Your task to perform on an android device: change alarm snooze length Image 0: 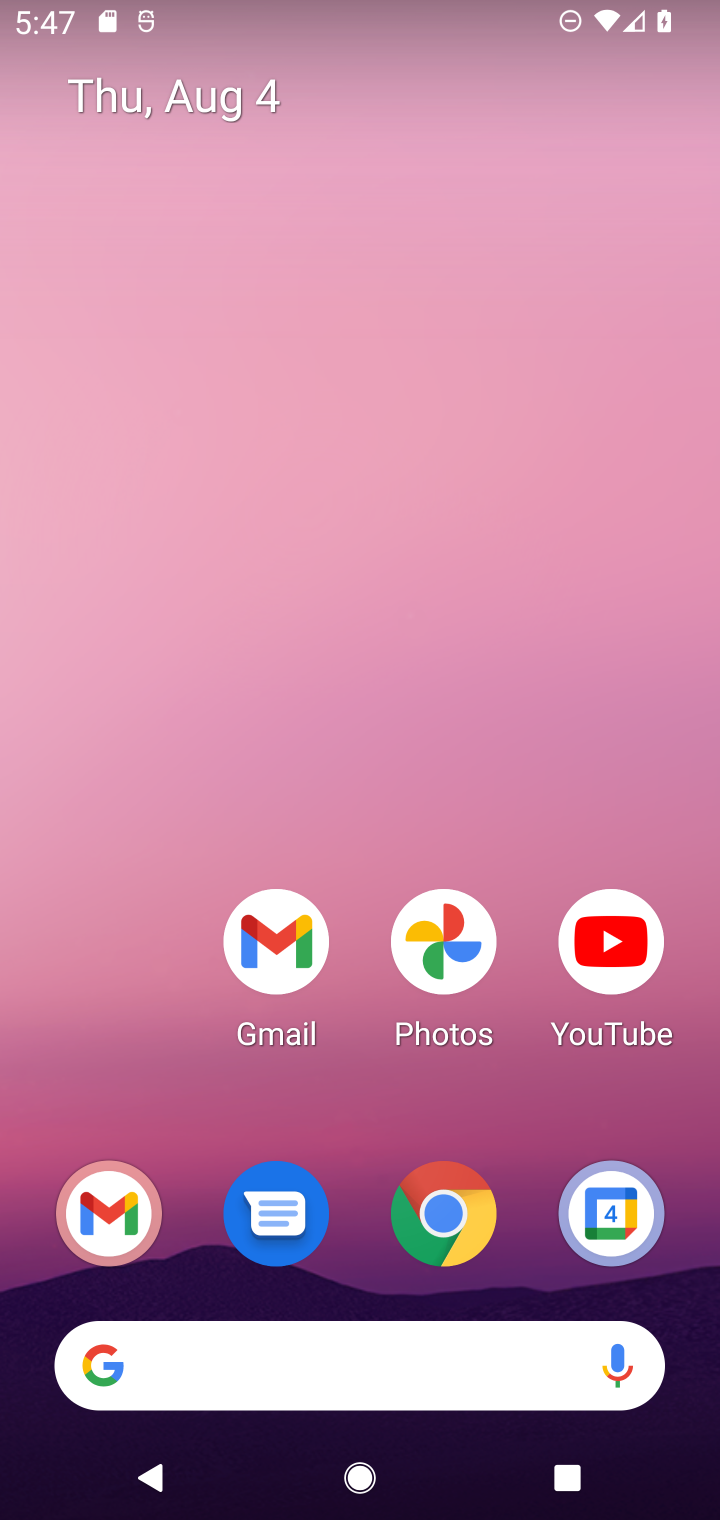
Step 0: press home button
Your task to perform on an android device: change alarm snooze length Image 1: 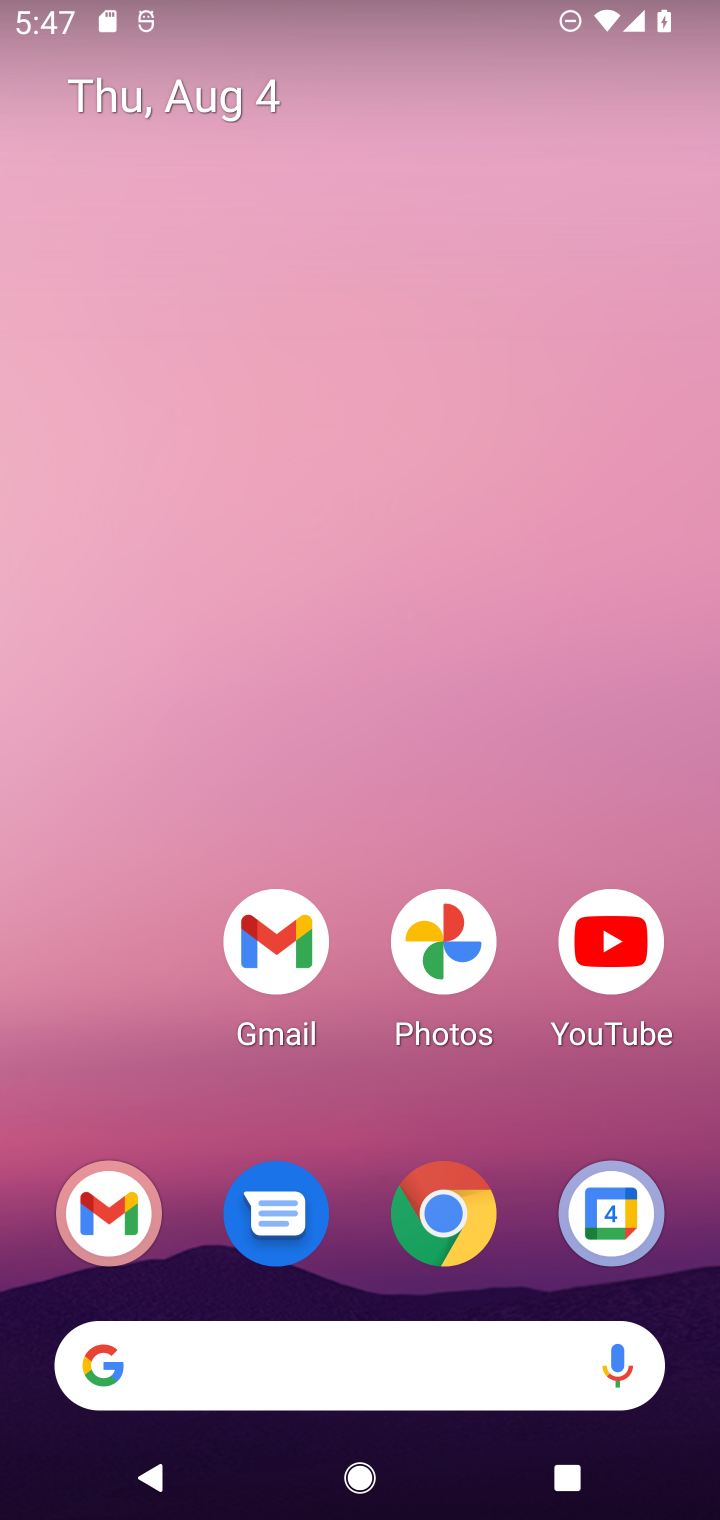
Step 1: drag from (174, 1069) to (252, 270)
Your task to perform on an android device: change alarm snooze length Image 2: 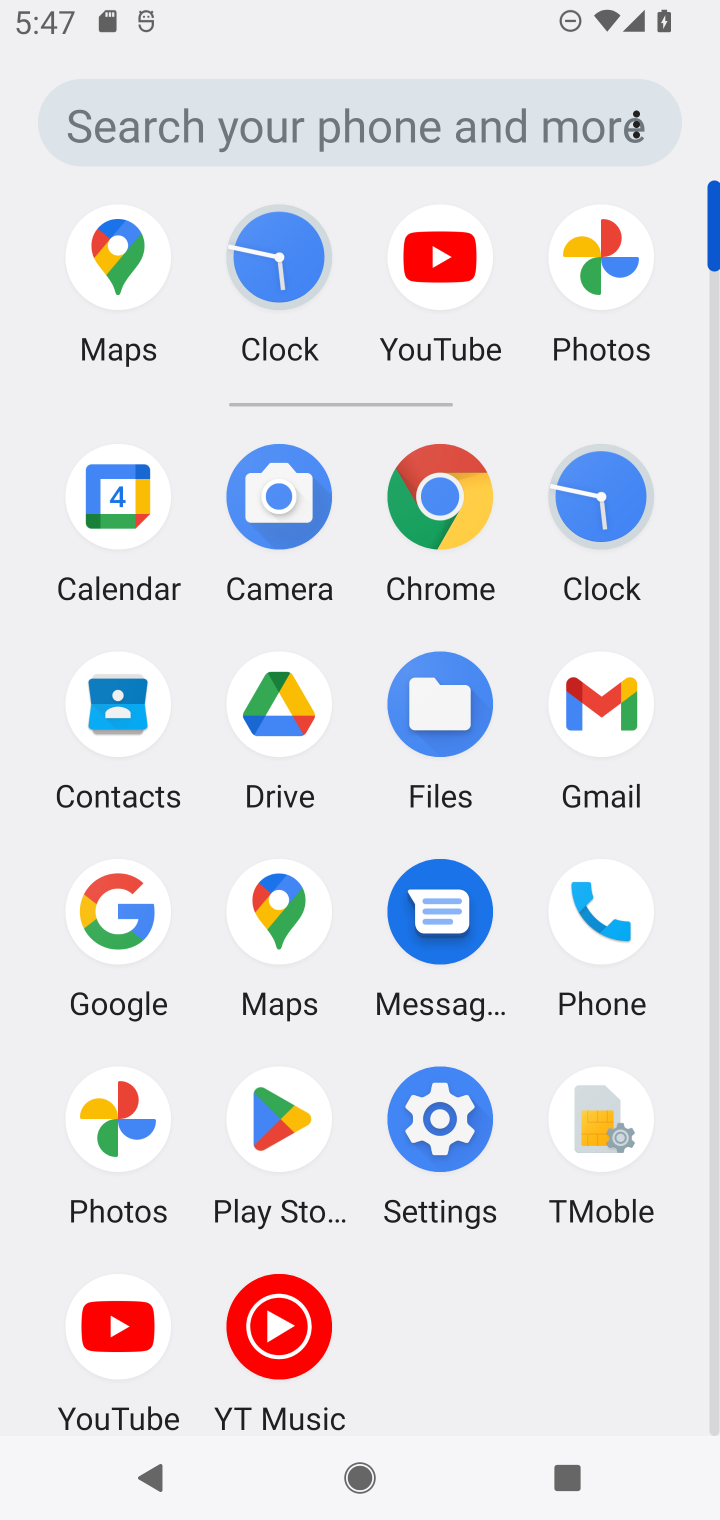
Step 2: click (596, 510)
Your task to perform on an android device: change alarm snooze length Image 3: 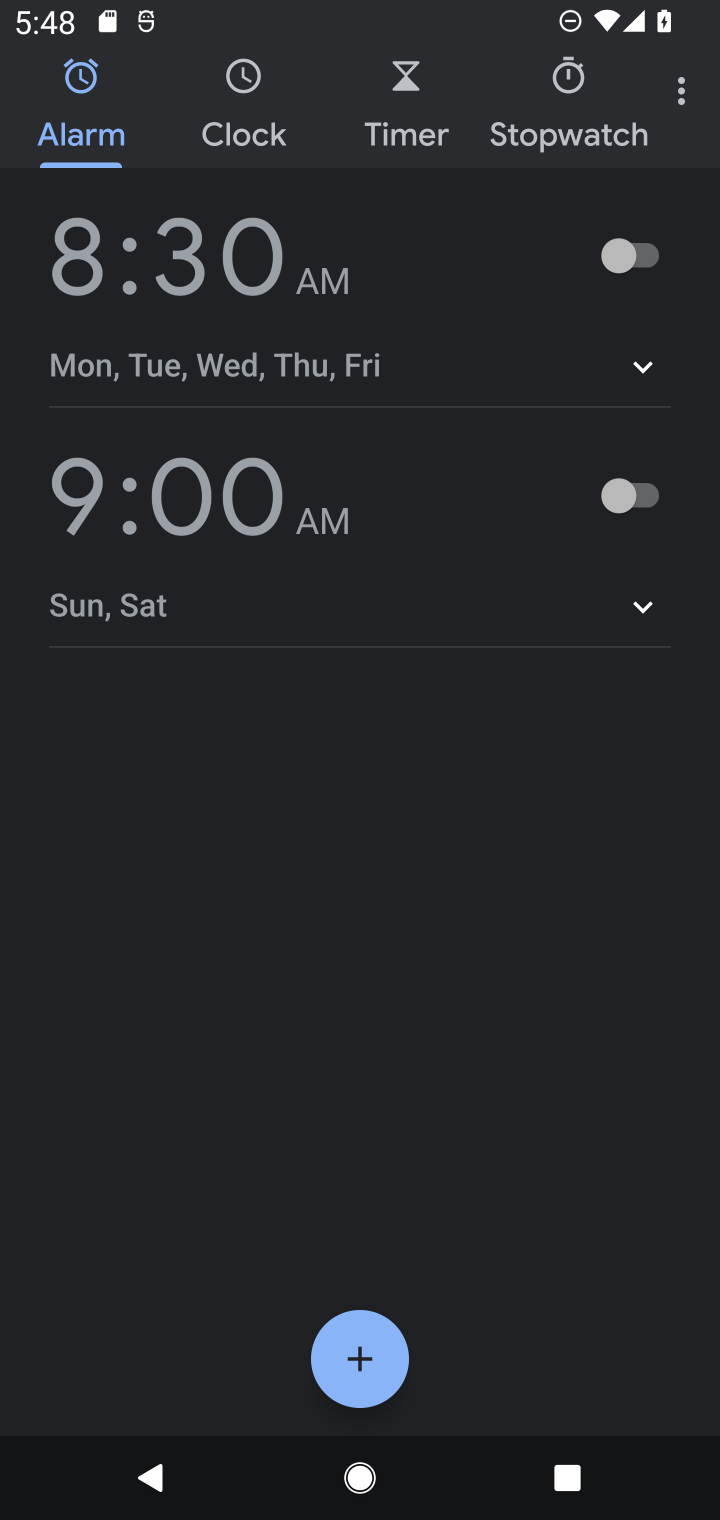
Step 3: click (684, 90)
Your task to perform on an android device: change alarm snooze length Image 4: 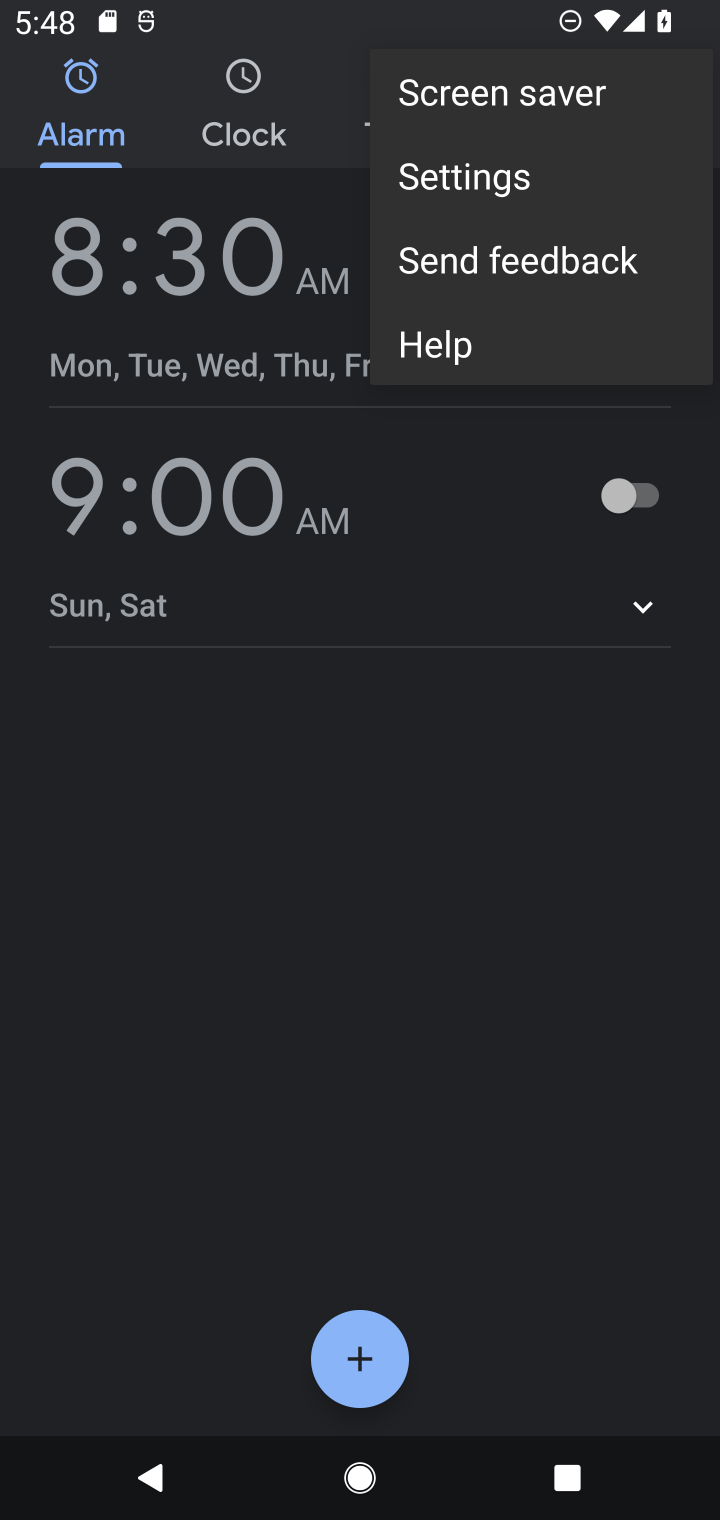
Step 4: click (513, 167)
Your task to perform on an android device: change alarm snooze length Image 5: 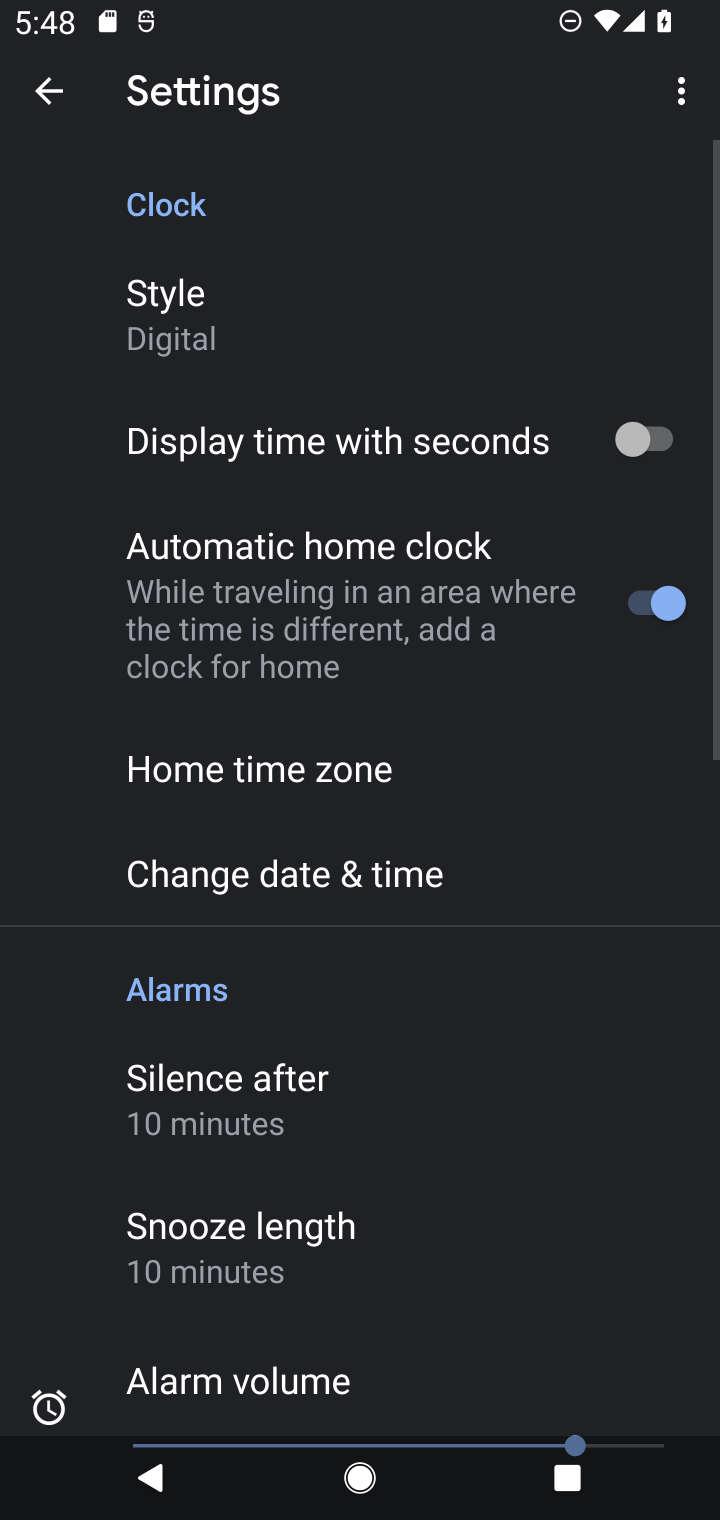
Step 5: drag from (496, 1098) to (498, 591)
Your task to perform on an android device: change alarm snooze length Image 6: 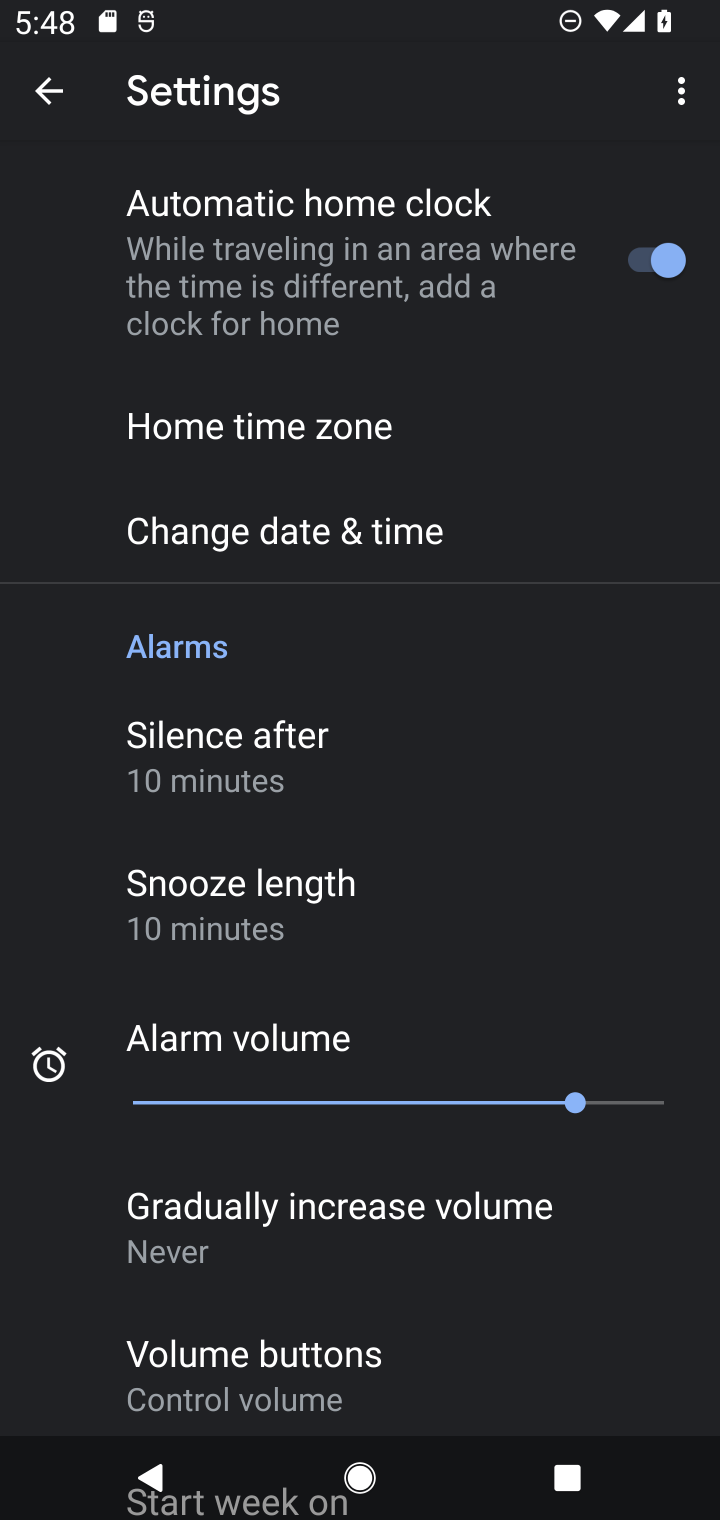
Step 6: drag from (500, 1286) to (494, 909)
Your task to perform on an android device: change alarm snooze length Image 7: 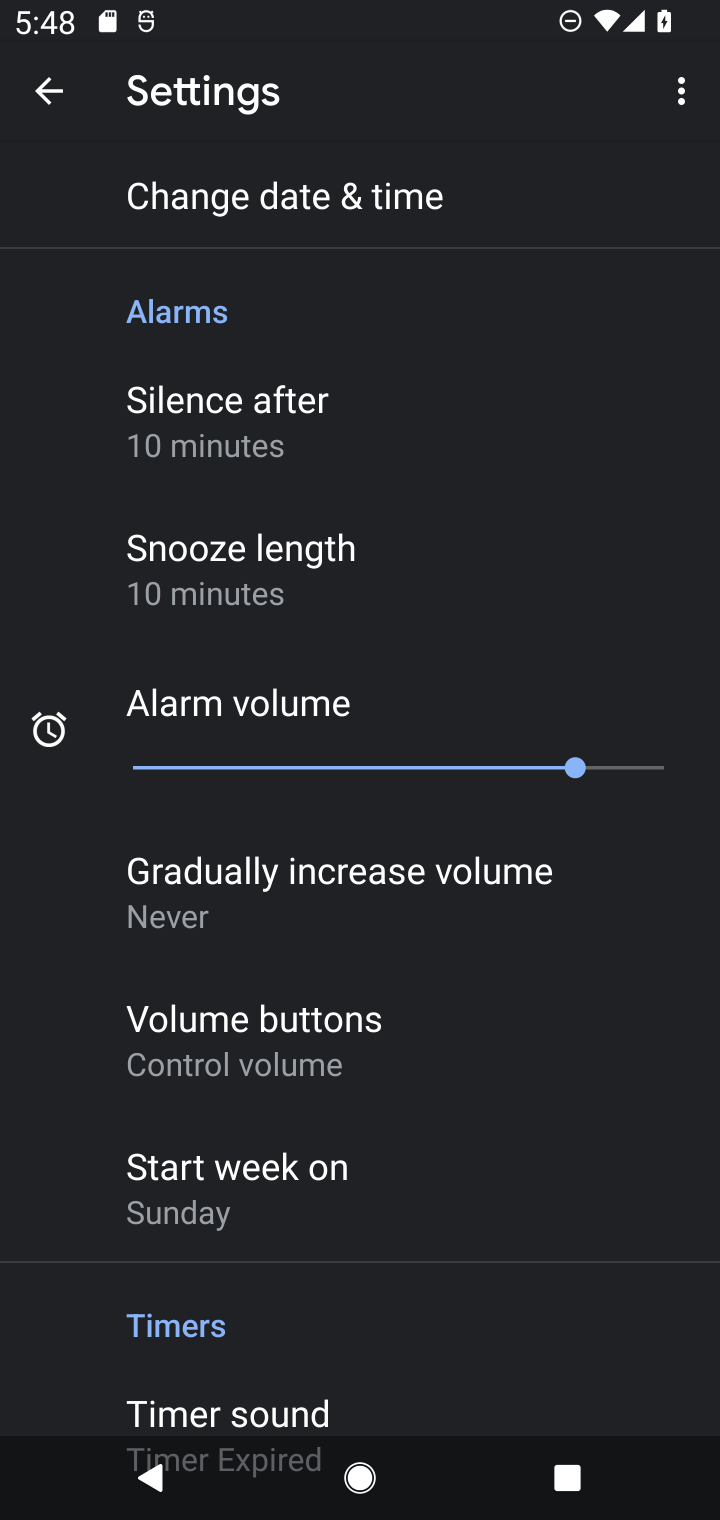
Step 7: drag from (523, 1185) to (525, 868)
Your task to perform on an android device: change alarm snooze length Image 8: 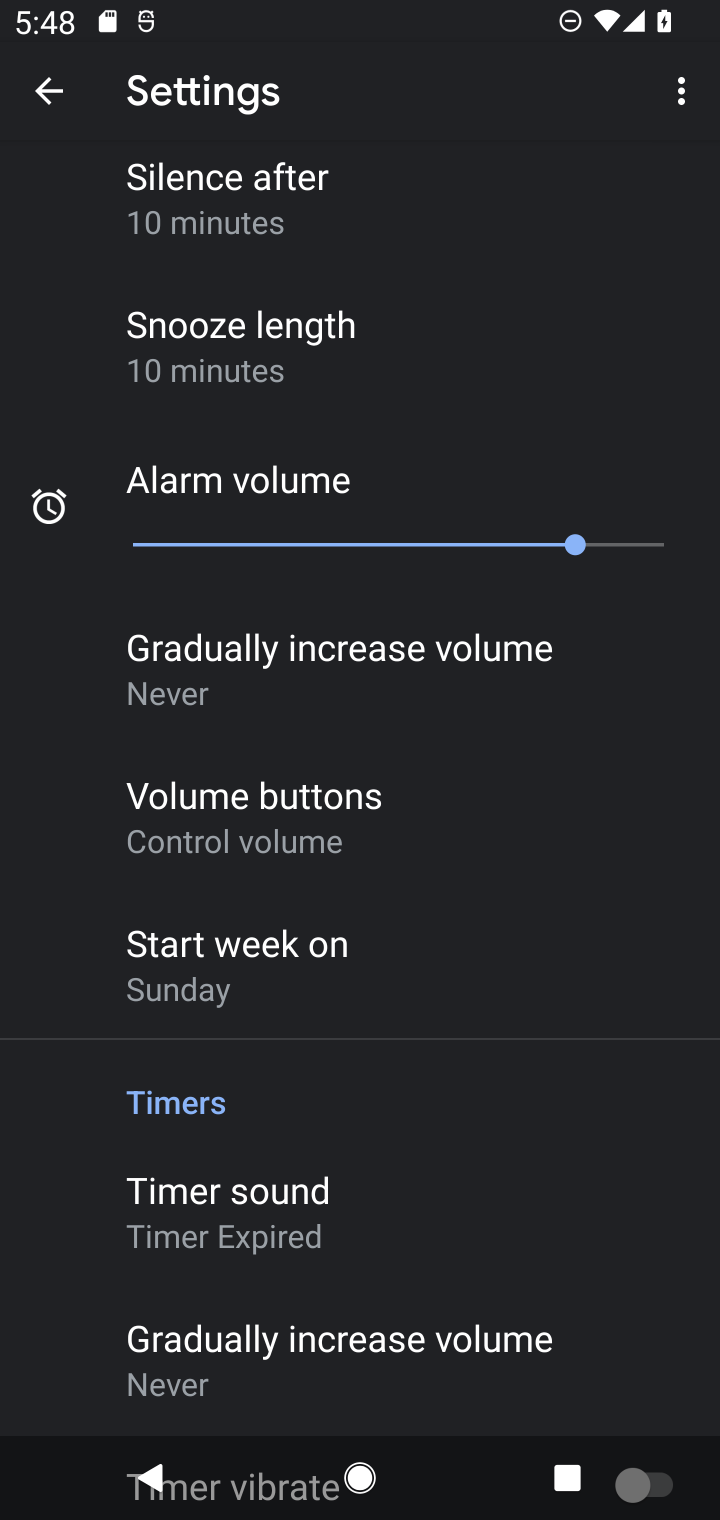
Step 8: drag from (599, 1156) to (601, 835)
Your task to perform on an android device: change alarm snooze length Image 9: 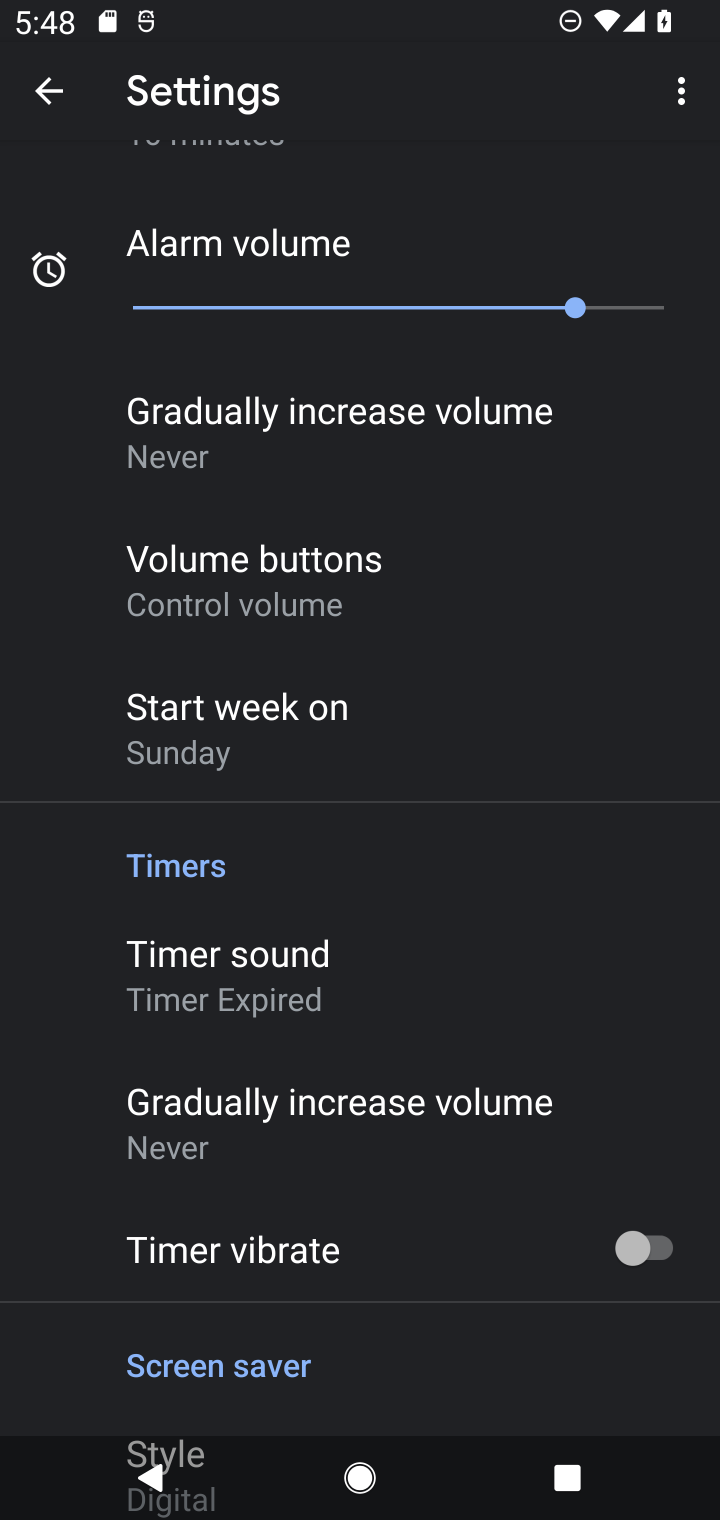
Step 9: drag from (456, 1224) to (453, 797)
Your task to perform on an android device: change alarm snooze length Image 10: 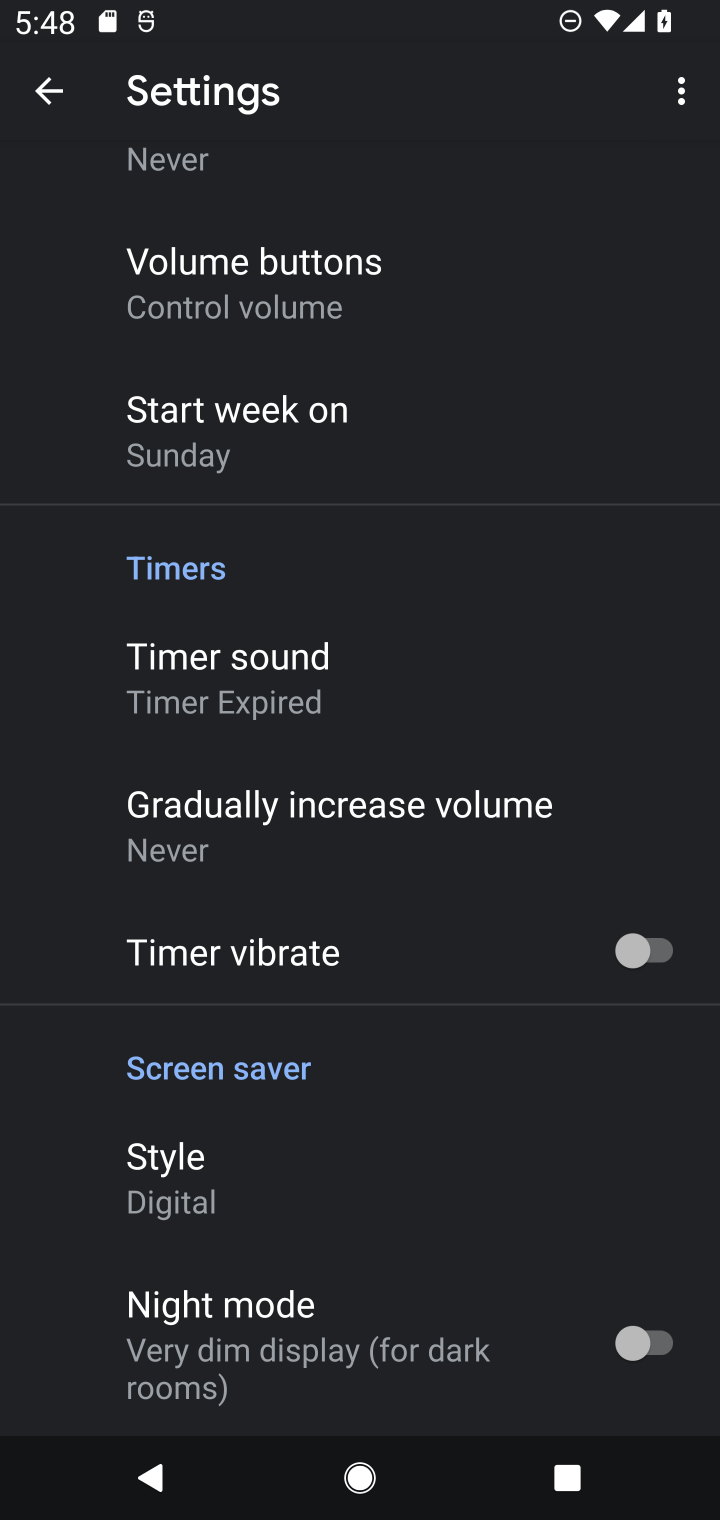
Step 10: drag from (453, 1202) to (453, 823)
Your task to perform on an android device: change alarm snooze length Image 11: 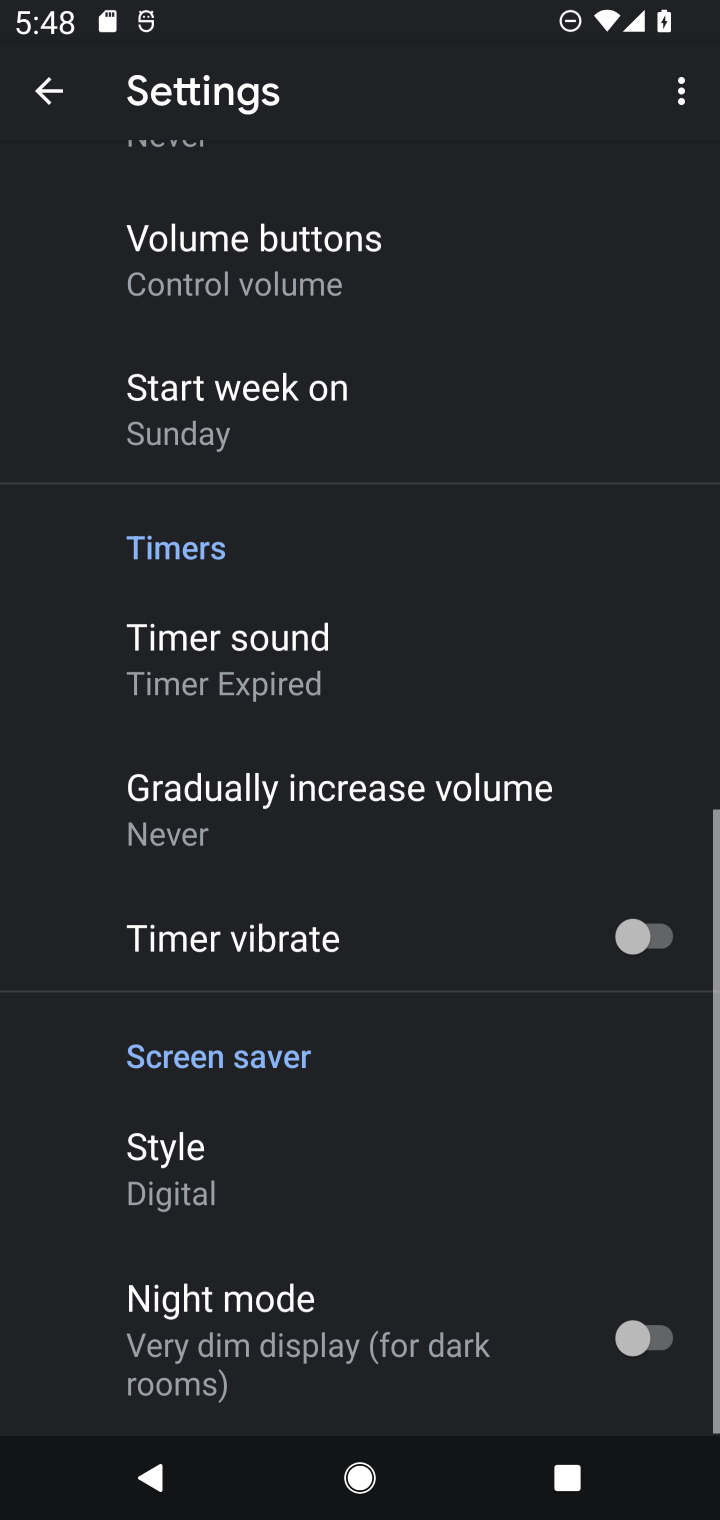
Step 11: drag from (485, 575) to (485, 1014)
Your task to perform on an android device: change alarm snooze length Image 12: 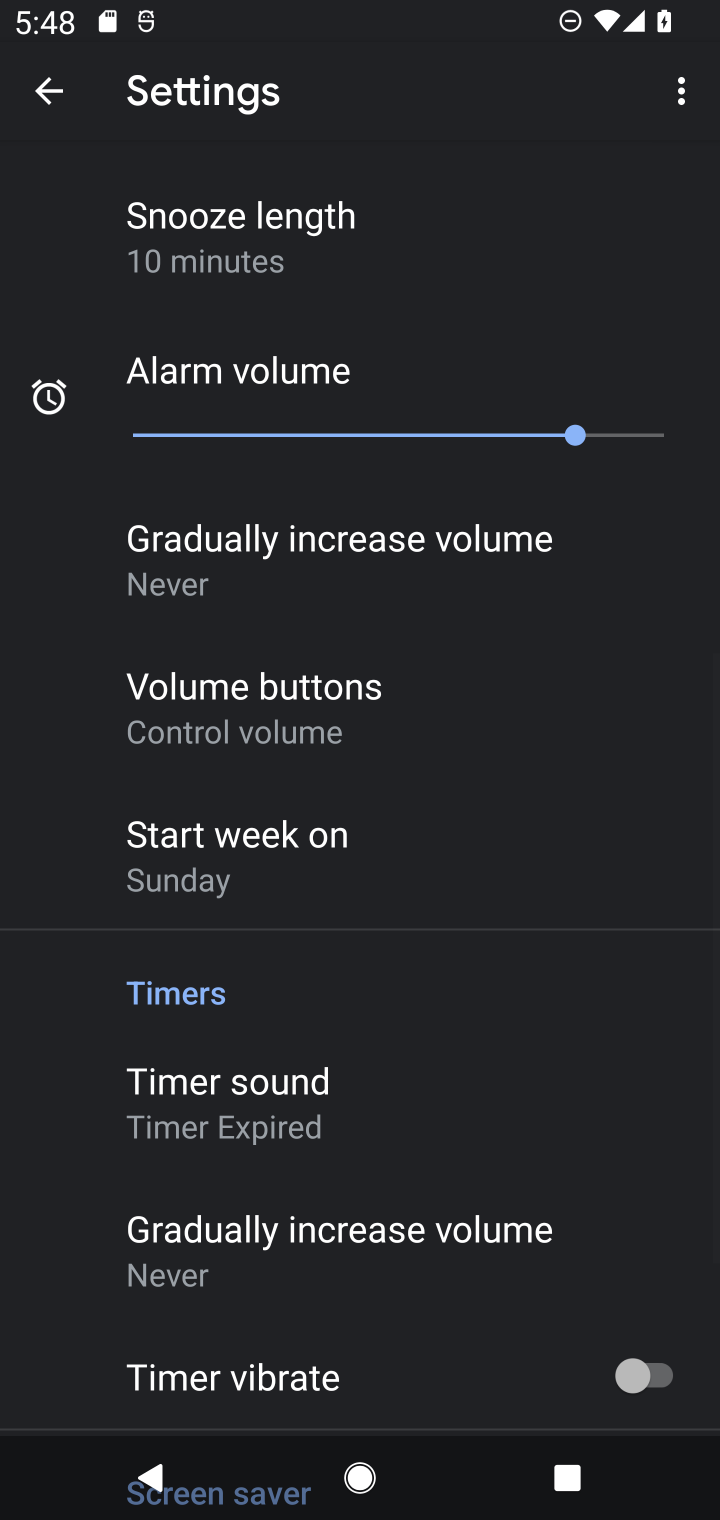
Step 12: drag from (507, 682) to (510, 1040)
Your task to perform on an android device: change alarm snooze length Image 13: 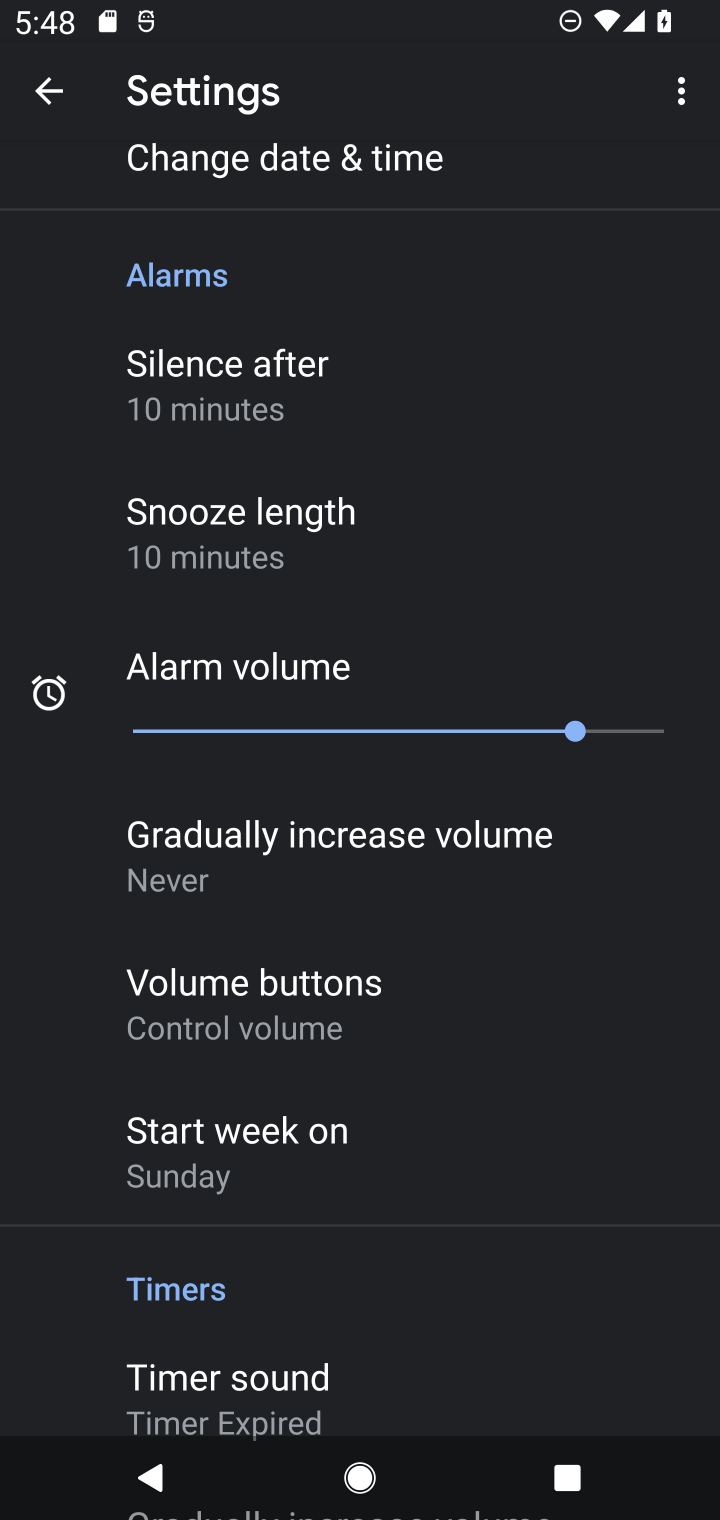
Step 13: drag from (574, 432) to (551, 885)
Your task to perform on an android device: change alarm snooze length Image 14: 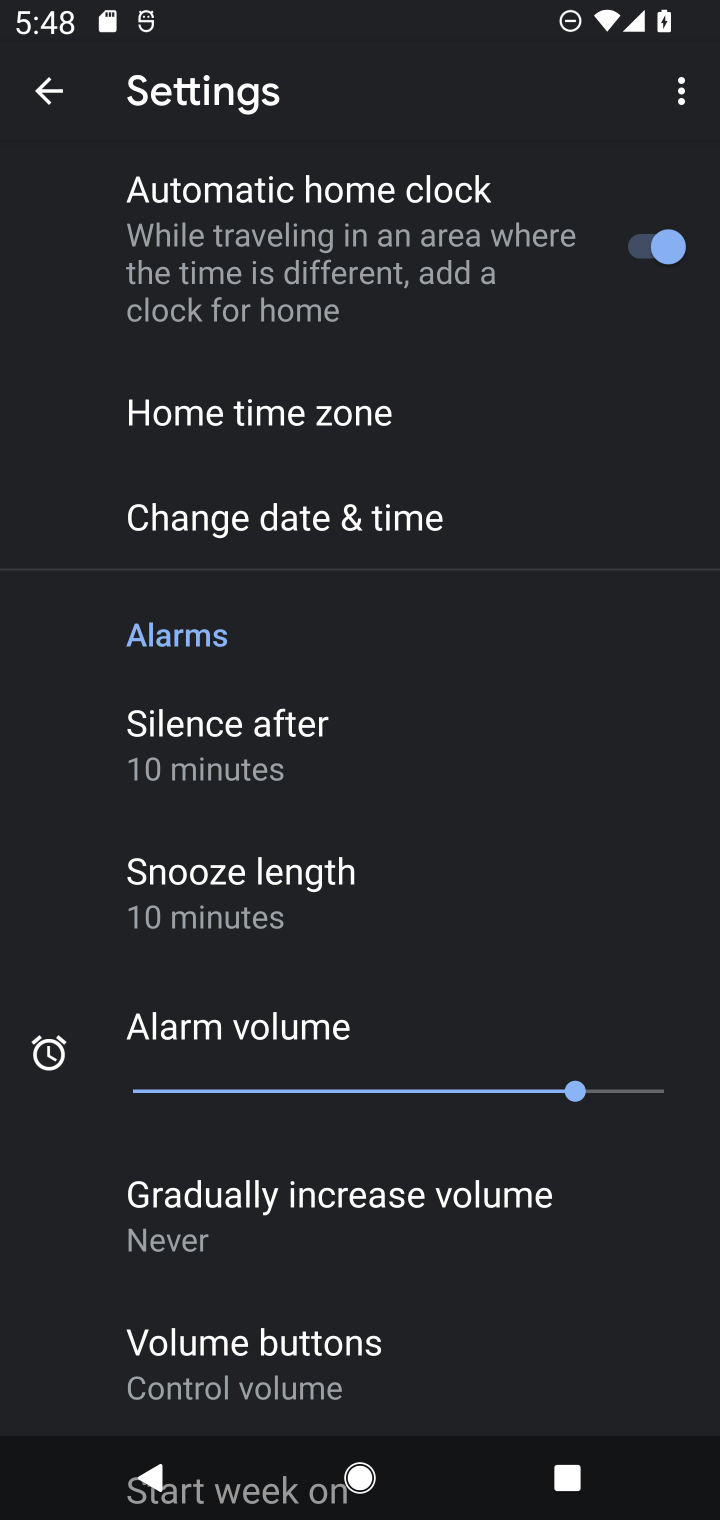
Step 14: drag from (538, 450) to (544, 919)
Your task to perform on an android device: change alarm snooze length Image 15: 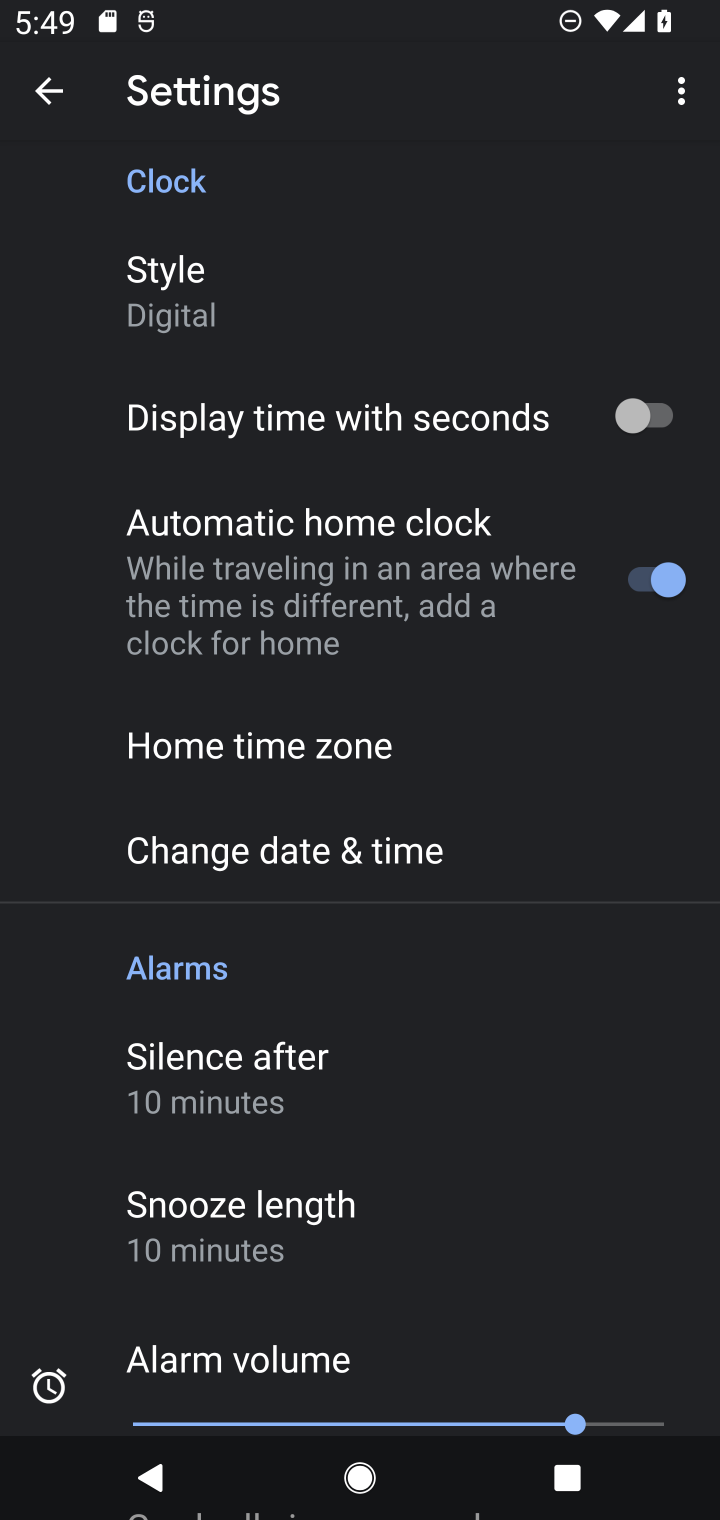
Step 15: click (386, 1248)
Your task to perform on an android device: change alarm snooze length Image 16: 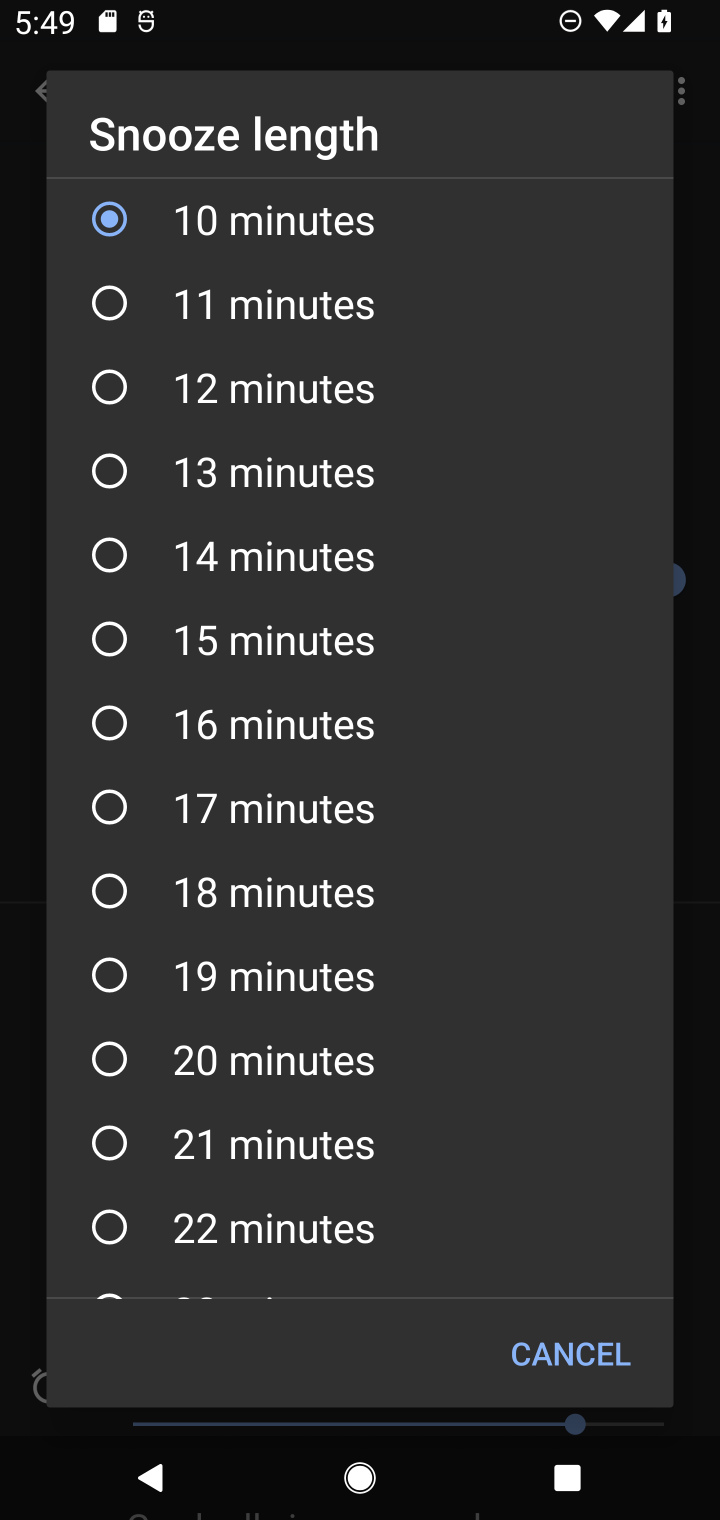
Step 16: click (312, 878)
Your task to perform on an android device: change alarm snooze length Image 17: 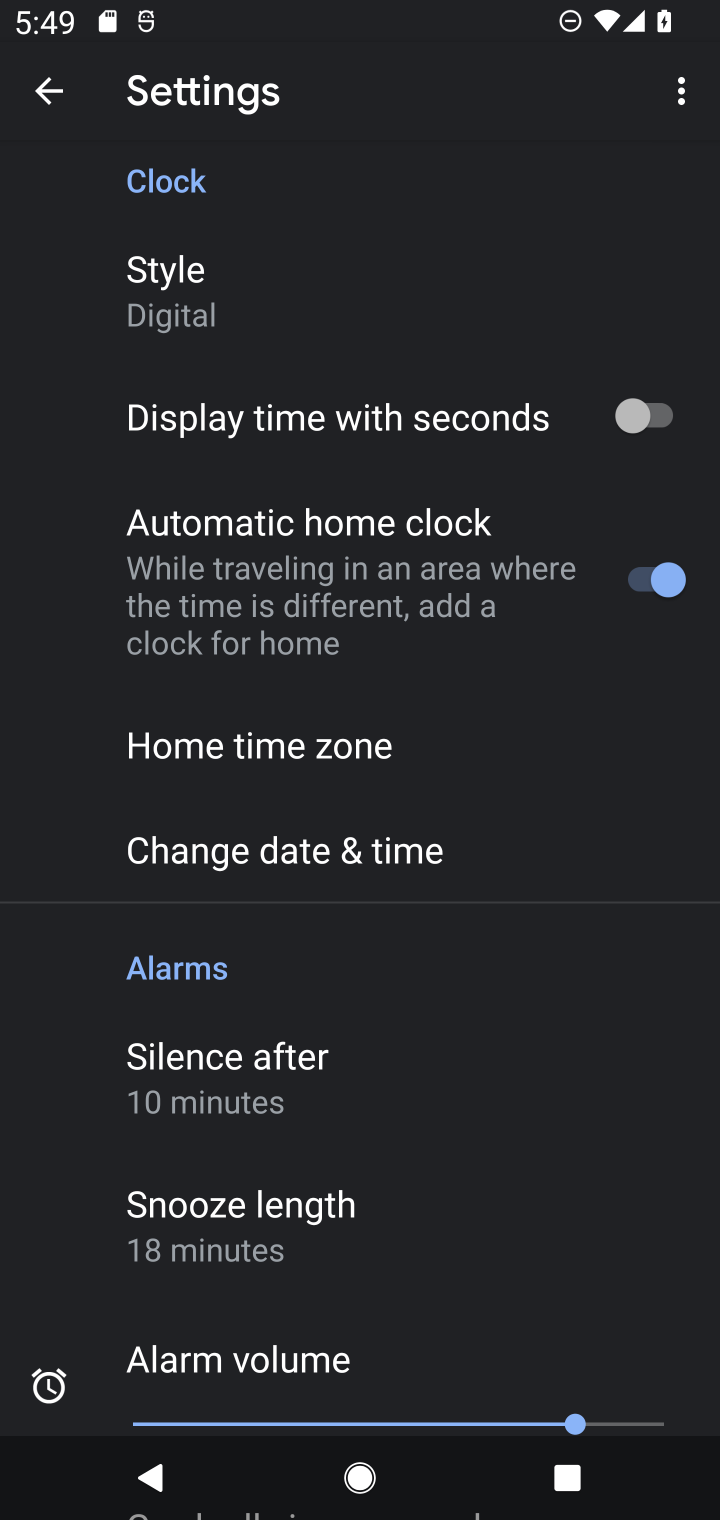
Step 17: task complete